Your task to perform on an android device: remove spam from my inbox in the gmail app Image 0: 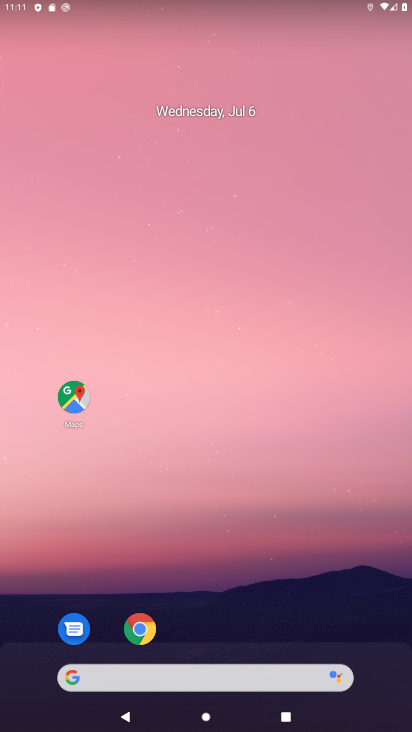
Step 0: drag from (251, 612) to (218, 8)
Your task to perform on an android device: remove spam from my inbox in the gmail app Image 1: 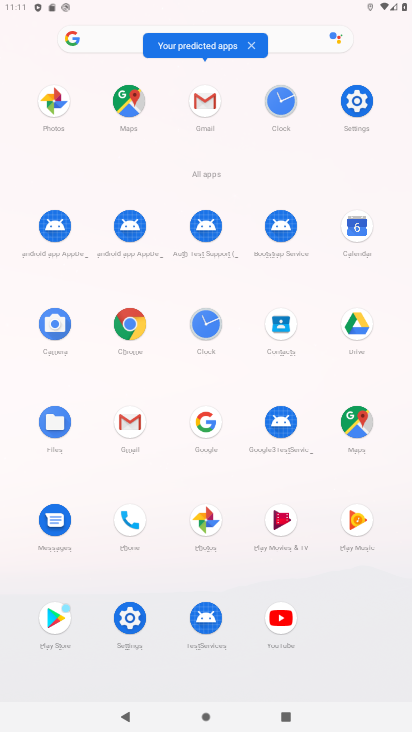
Step 1: click (209, 106)
Your task to perform on an android device: remove spam from my inbox in the gmail app Image 2: 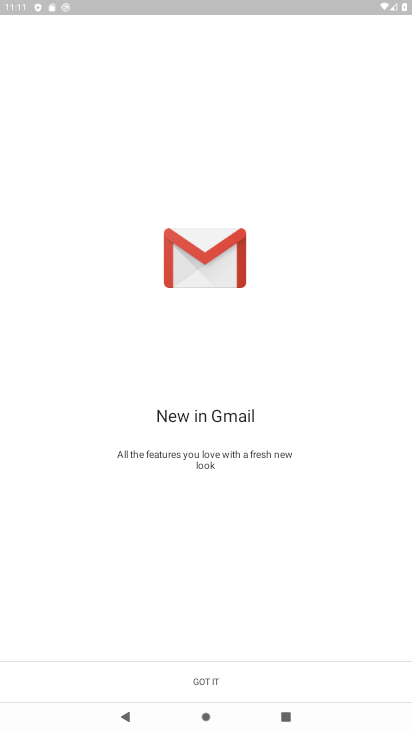
Step 2: click (206, 678)
Your task to perform on an android device: remove spam from my inbox in the gmail app Image 3: 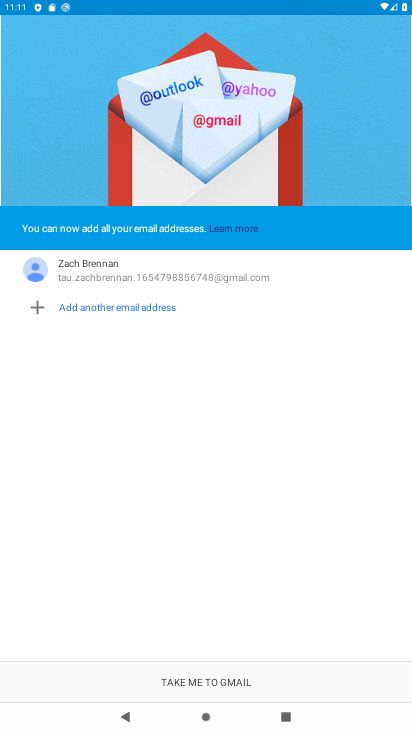
Step 3: click (206, 678)
Your task to perform on an android device: remove spam from my inbox in the gmail app Image 4: 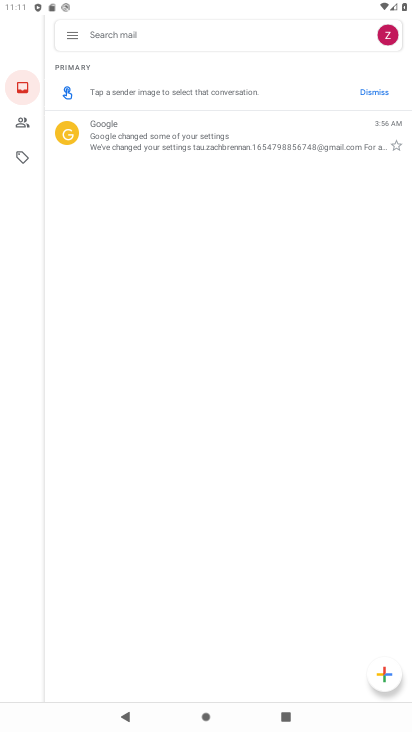
Step 4: click (76, 37)
Your task to perform on an android device: remove spam from my inbox in the gmail app Image 5: 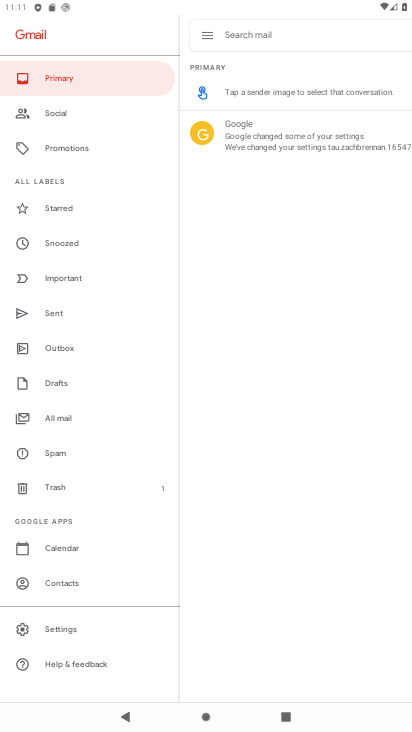
Step 5: click (69, 450)
Your task to perform on an android device: remove spam from my inbox in the gmail app Image 6: 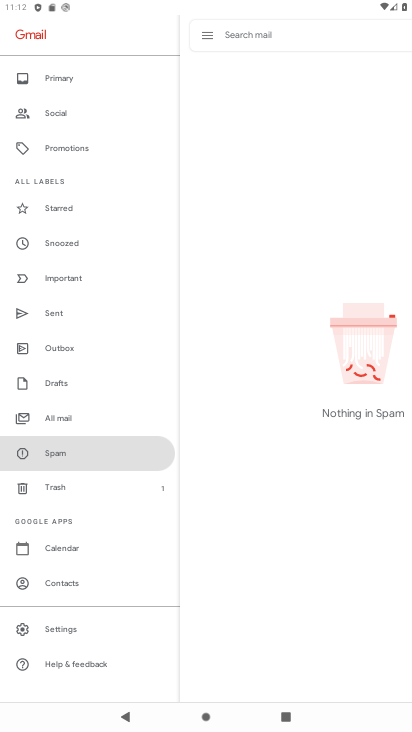
Step 6: task complete